Your task to perform on an android device: open app "Facebook Lite" (install if not already installed) Image 0: 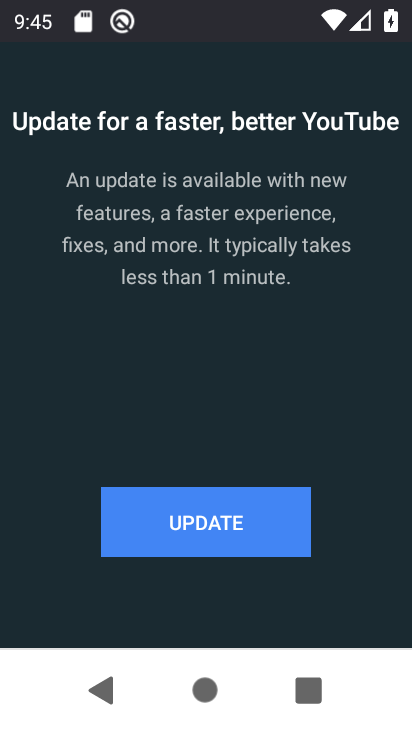
Step 0: press home button
Your task to perform on an android device: open app "Facebook Lite" (install if not already installed) Image 1: 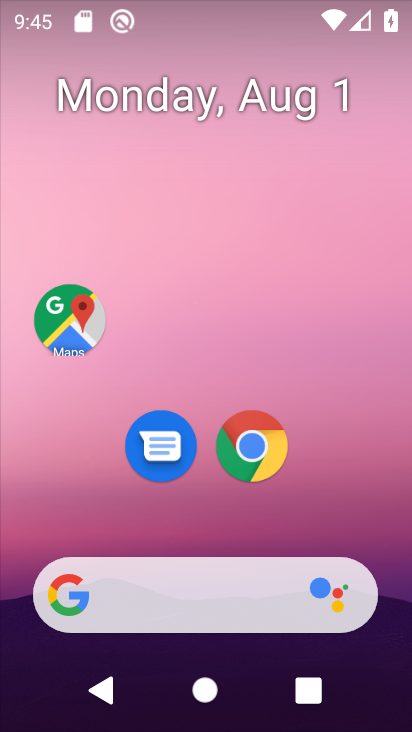
Step 1: drag from (201, 537) to (210, 120)
Your task to perform on an android device: open app "Facebook Lite" (install if not already installed) Image 2: 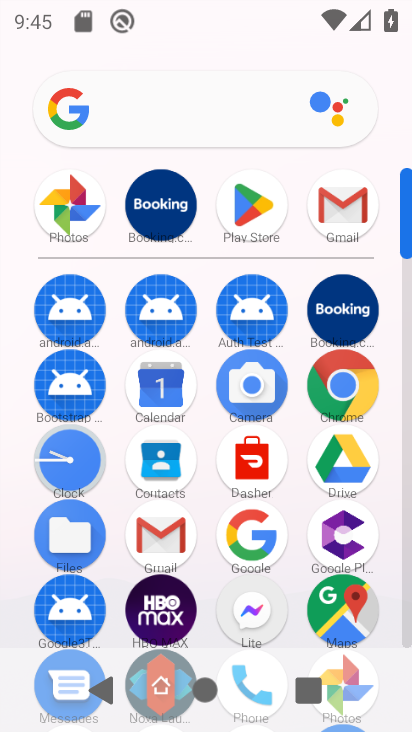
Step 2: click (244, 185)
Your task to perform on an android device: open app "Facebook Lite" (install if not already installed) Image 3: 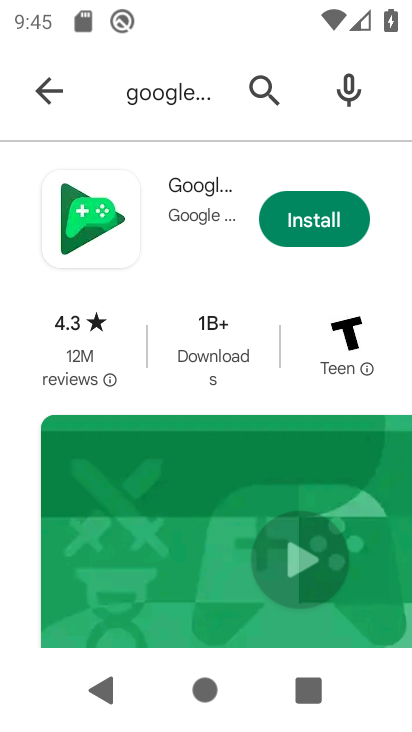
Step 3: click (274, 105)
Your task to perform on an android device: open app "Facebook Lite" (install if not already installed) Image 4: 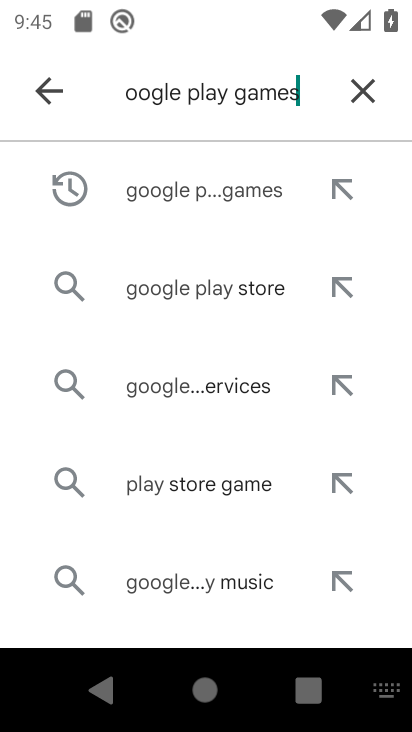
Step 4: click (359, 86)
Your task to perform on an android device: open app "Facebook Lite" (install if not already installed) Image 5: 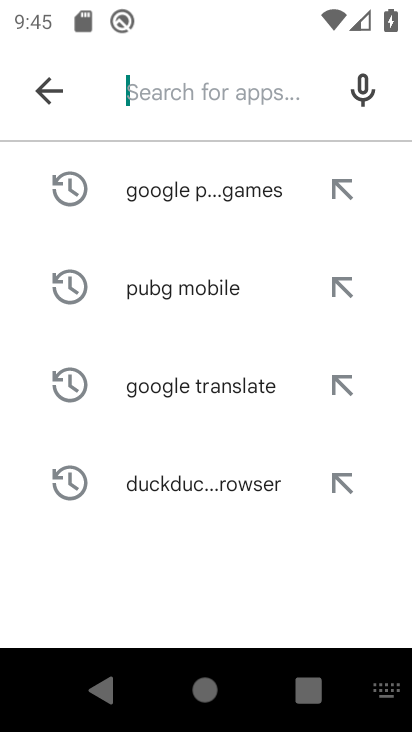
Step 5: type "Facebook Lite"
Your task to perform on an android device: open app "Facebook Lite" (install if not already installed) Image 6: 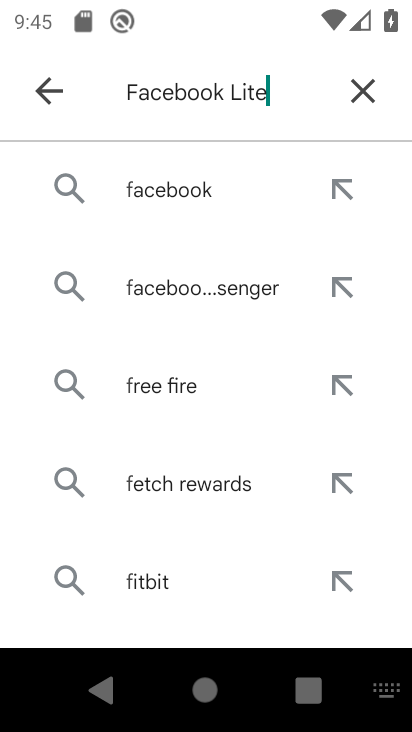
Step 6: type ""
Your task to perform on an android device: open app "Facebook Lite" (install if not already installed) Image 7: 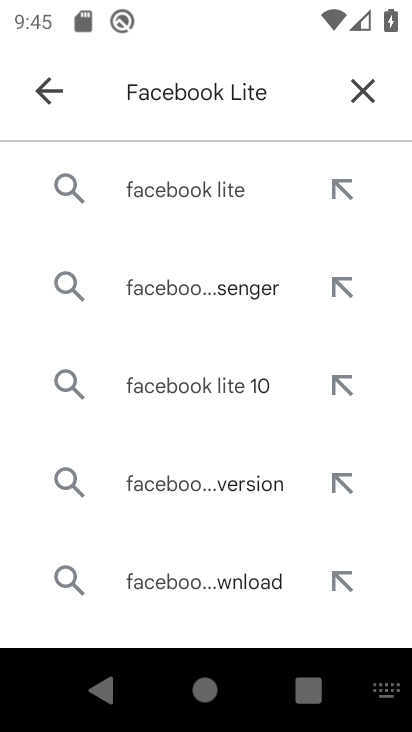
Step 7: click (187, 182)
Your task to perform on an android device: open app "Facebook Lite" (install if not already installed) Image 8: 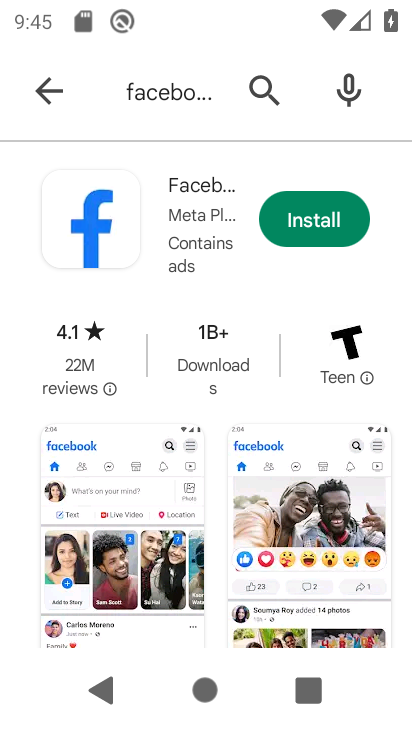
Step 8: drag from (200, 573) to (252, 529)
Your task to perform on an android device: open app "Facebook Lite" (install if not already installed) Image 9: 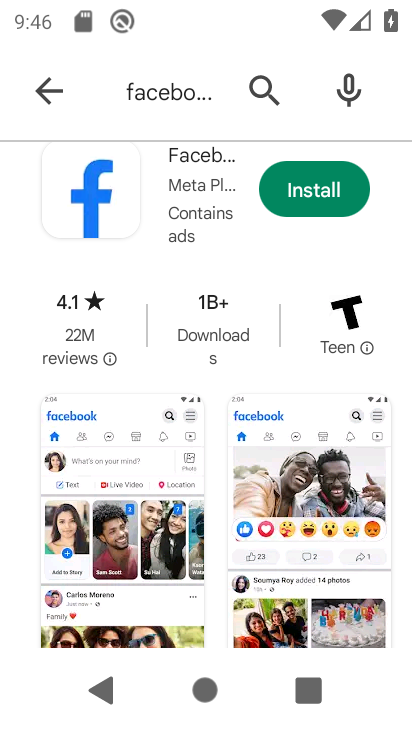
Step 9: click (305, 220)
Your task to perform on an android device: open app "Facebook Lite" (install if not already installed) Image 10: 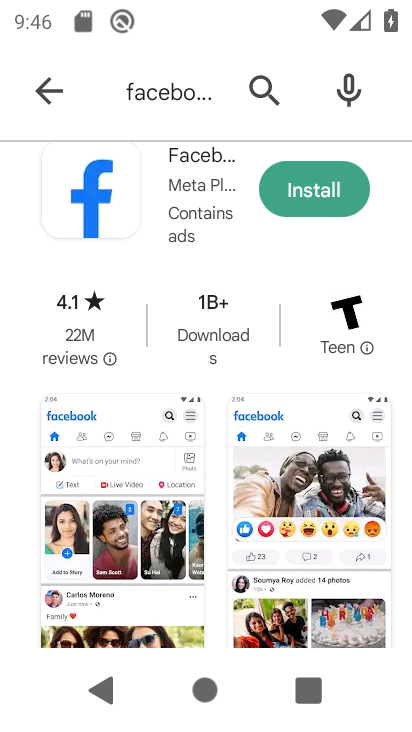
Step 10: click (305, 201)
Your task to perform on an android device: open app "Facebook Lite" (install if not already installed) Image 11: 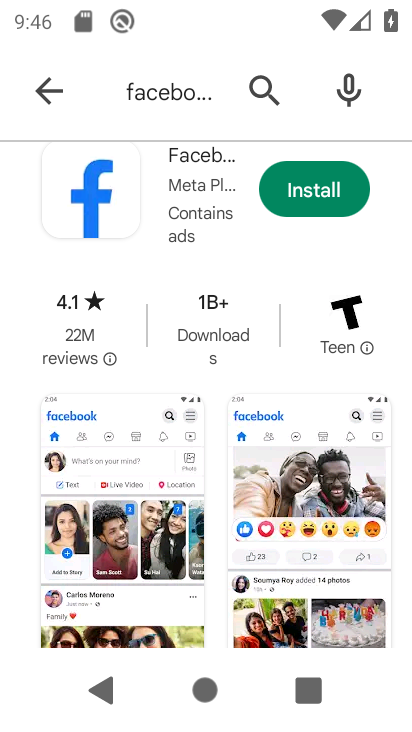
Step 11: click (305, 201)
Your task to perform on an android device: open app "Facebook Lite" (install if not already installed) Image 12: 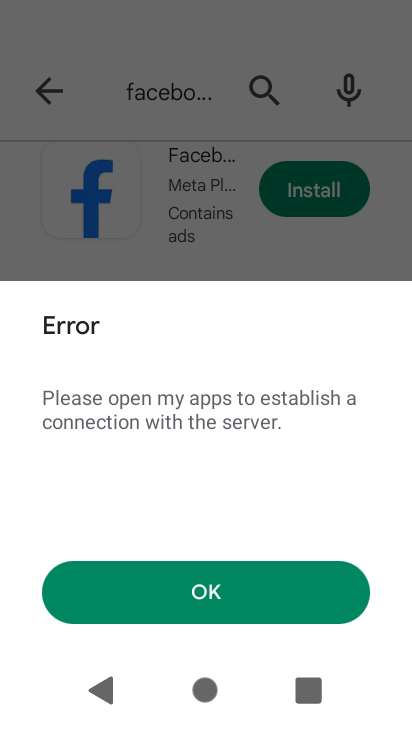
Step 12: click (253, 578)
Your task to perform on an android device: open app "Facebook Lite" (install if not already installed) Image 13: 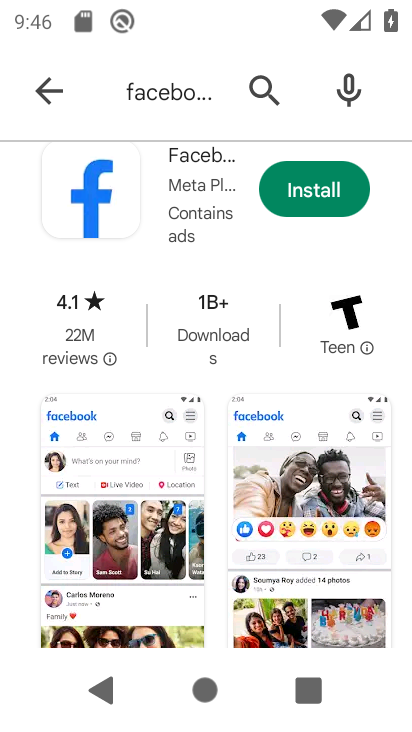
Step 13: click (305, 204)
Your task to perform on an android device: open app "Facebook Lite" (install if not already installed) Image 14: 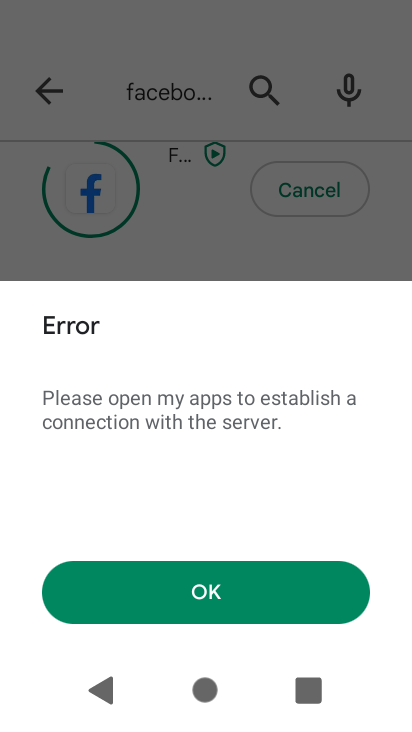
Step 14: task complete